Your task to perform on an android device: find photos in the google photos app Image 0: 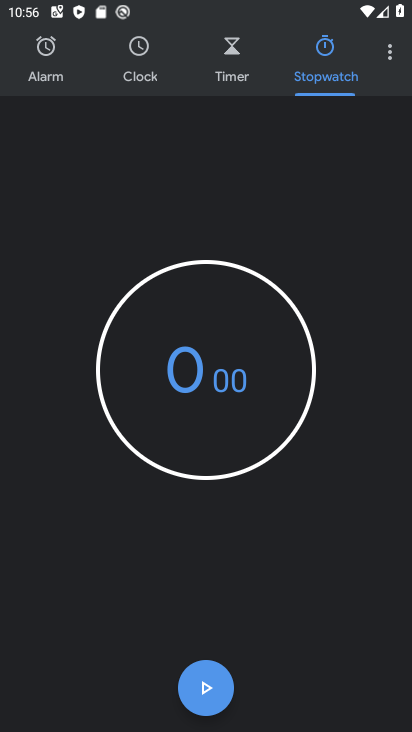
Step 0: press home button
Your task to perform on an android device: find photos in the google photos app Image 1: 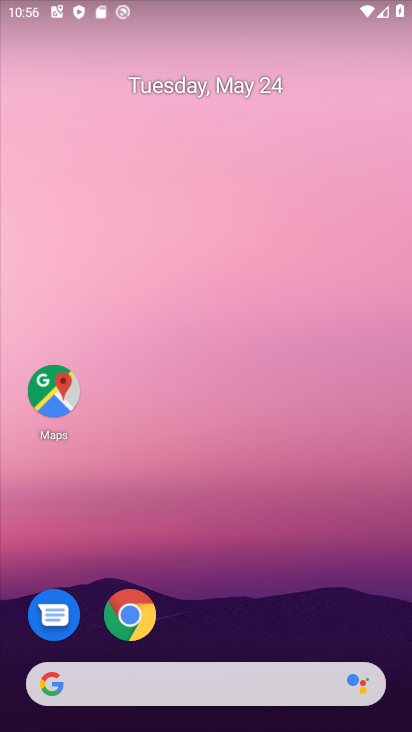
Step 1: drag from (240, 635) to (196, 320)
Your task to perform on an android device: find photos in the google photos app Image 2: 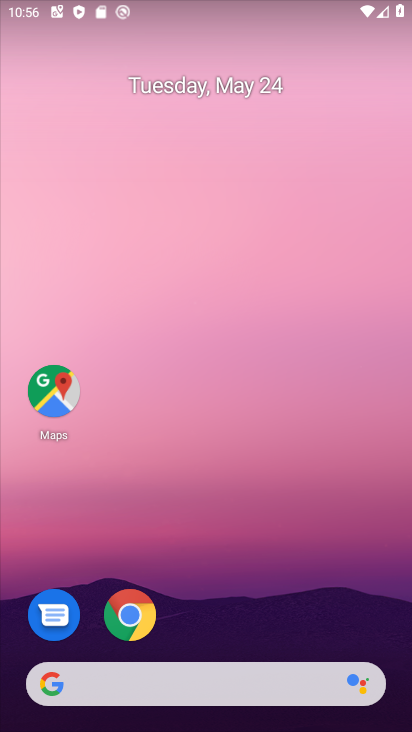
Step 2: drag from (278, 586) to (264, 218)
Your task to perform on an android device: find photos in the google photos app Image 3: 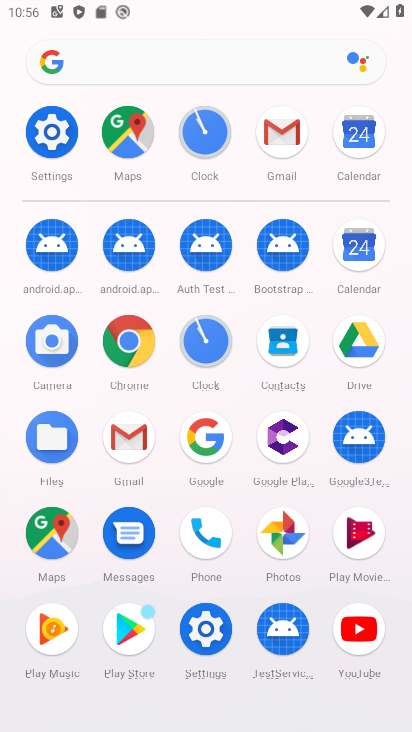
Step 3: click (265, 529)
Your task to perform on an android device: find photos in the google photos app Image 4: 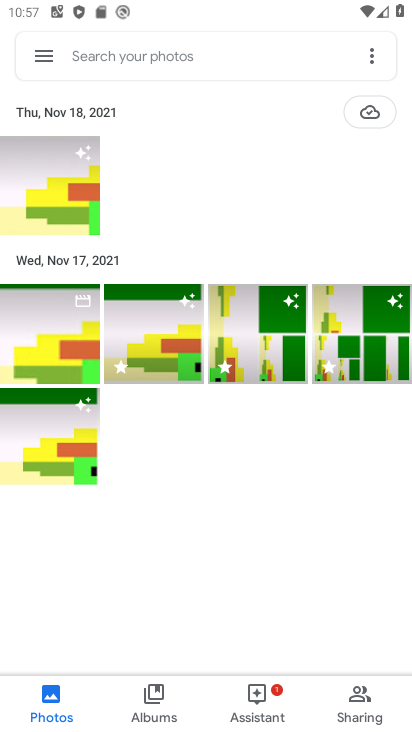
Step 4: task complete